Your task to perform on an android device: star an email in the gmail app Image 0: 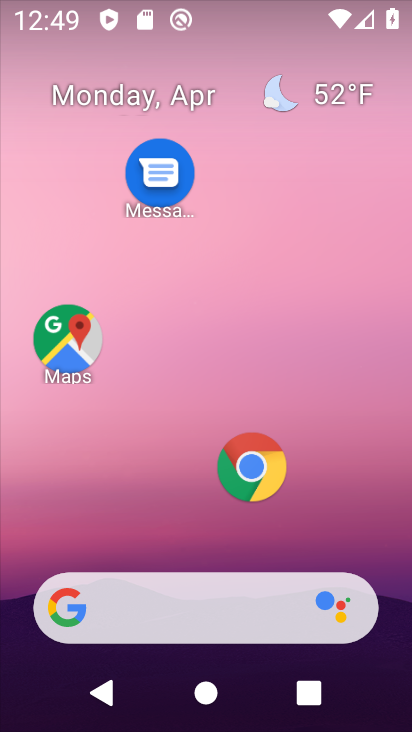
Step 0: drag from (179, 443) to (218, 123)
Your task to perform on an android device: star an email in the gmail app Image 1: 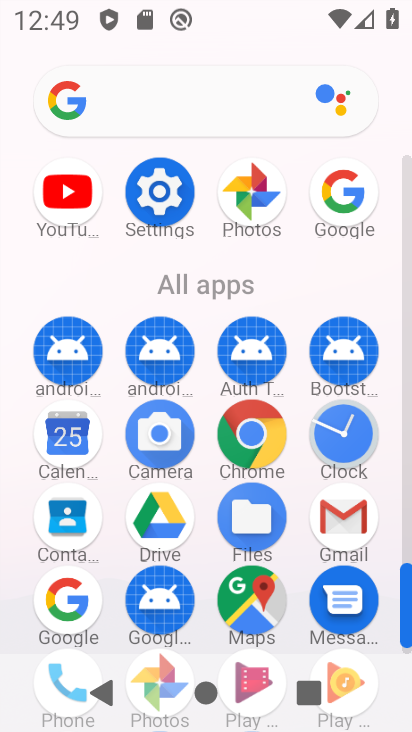
Step 1: click (331, 519)
Your task to perform on an android device: star an email in the gmail app Image 2: 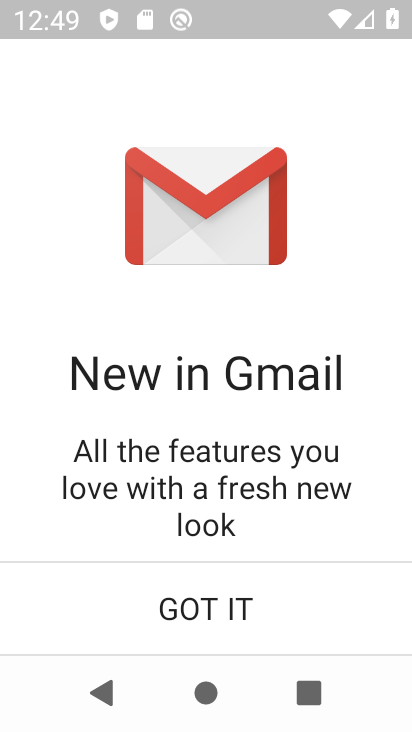
Step 2: click (264, 587)
Your task to perform on an android device: star an email in the gmail app Image 3: 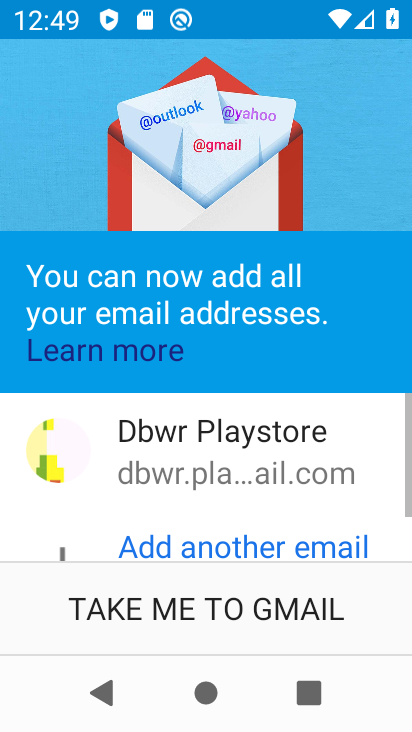
Step 3: click (245, 602)
Your task to perform on an android device: star an email in the gmail app Image 4: 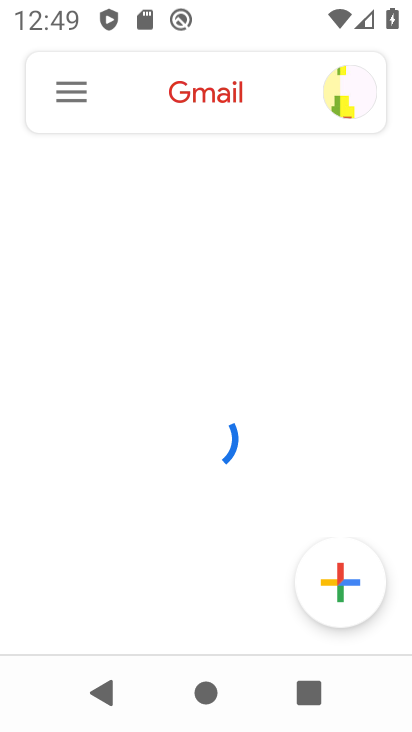
Step 4: click (72, 92)
Your task to perform on an android device: star an email in the gmail app Image 5: 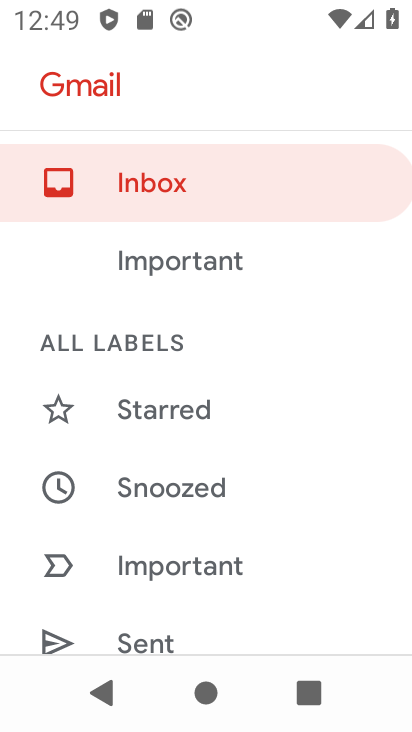
Step 5: drag from (213, 565) to (216, 236)
Your task to perform on an android device: star an email in the gmail app Image 6: 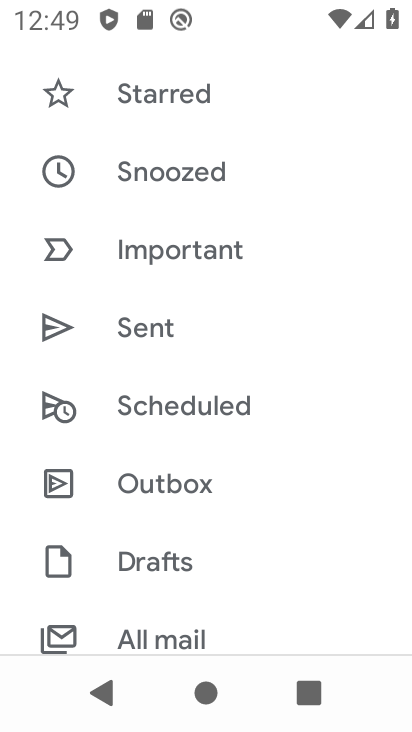
Step 6: drag from (221, 555) to (229, 303)
Your task to perform on an android device: star an email in the gmail app Image 7: 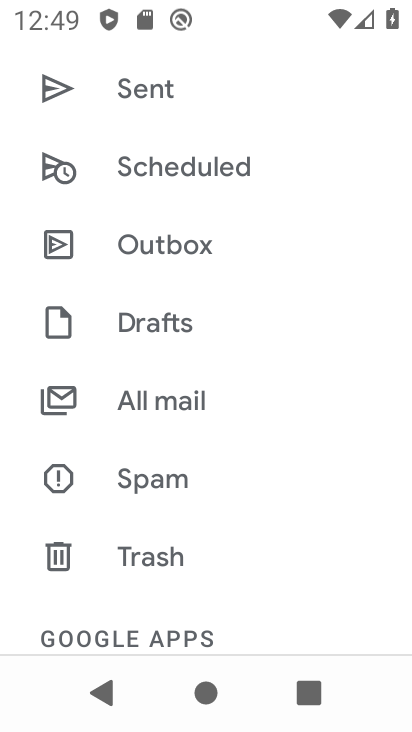
Step 7: click (160, 384)
Your task to perform on an android device: star an email in the gmail app Image 8: 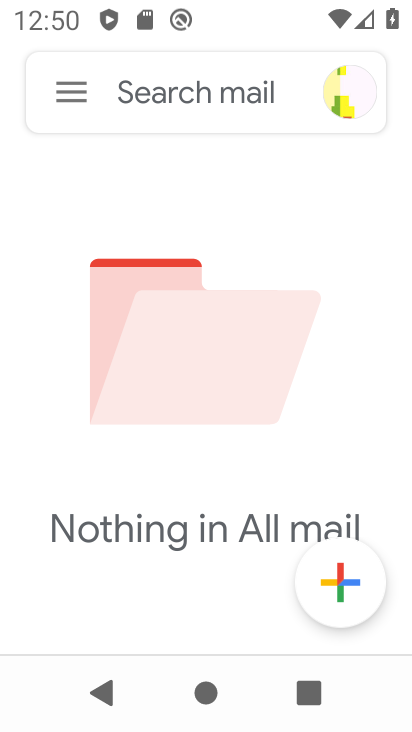
Step 8: task complete